Your task to perform on an android device: open app "Grab" Image 0: 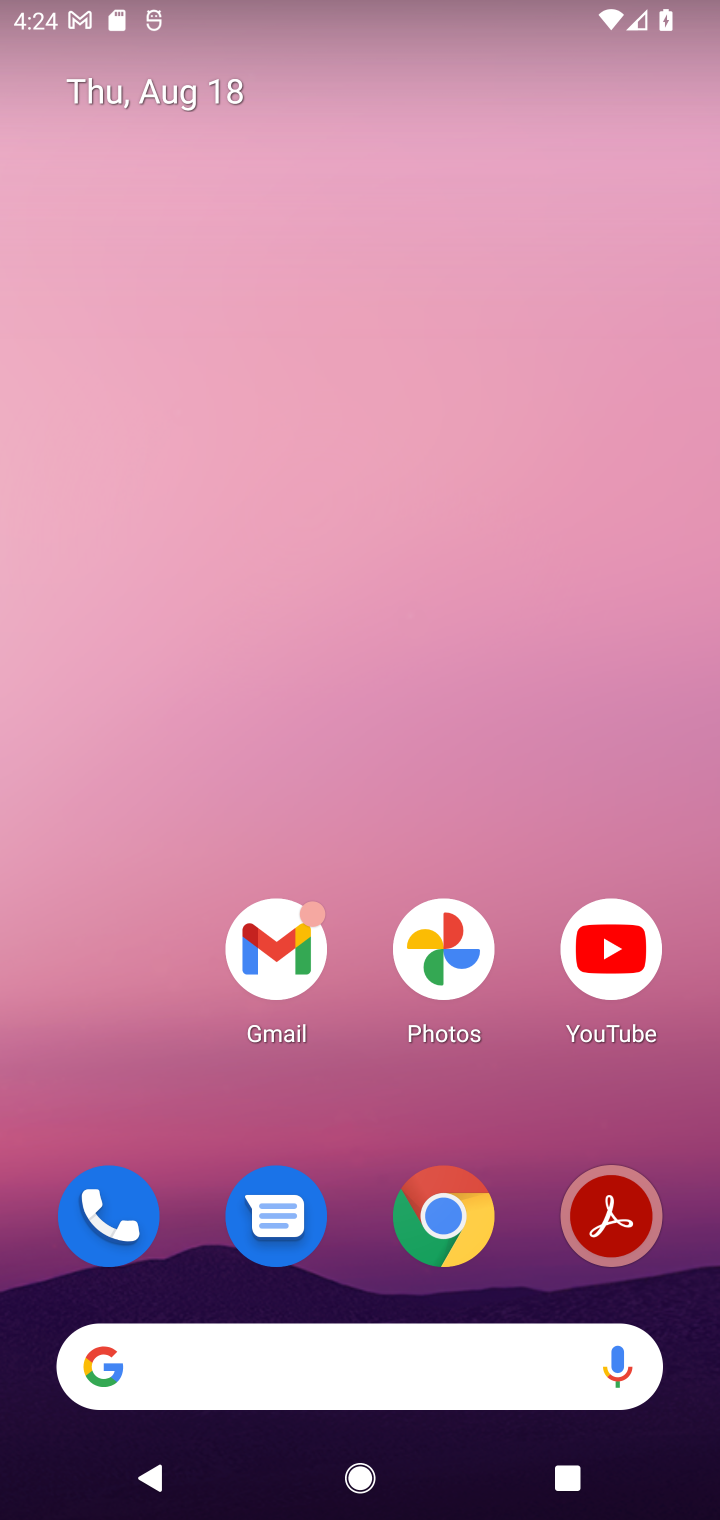
Step 0: drag from (519, 1285) to (450, 294)
Your task to perform on an android device: open app "Grab" Image 1: 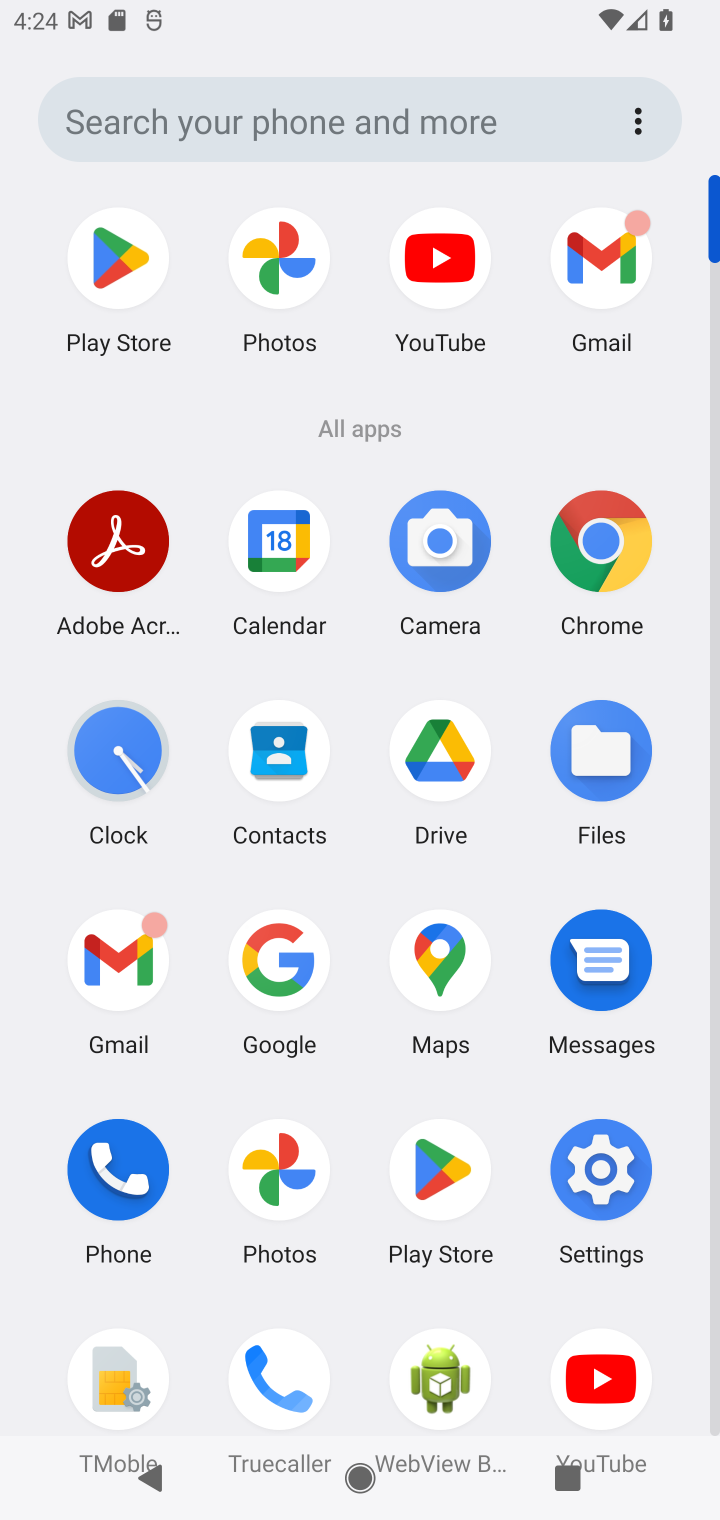
Step 1: click (439, 1172)
Your task to perform on an android device: open app "Grab" Image 2: 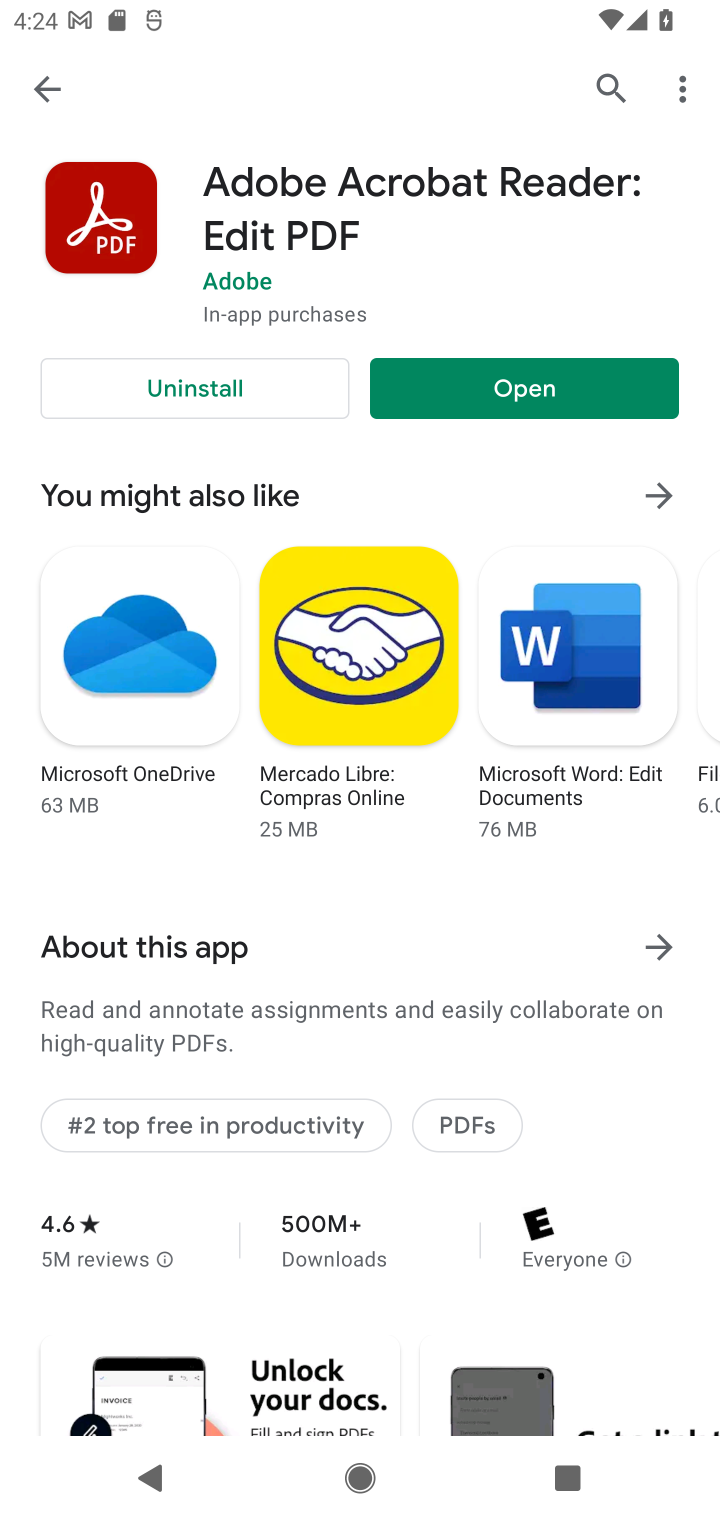
Step 2: click (611, 91)
Your task to perform on an android device: open app "Grab" Image 3: 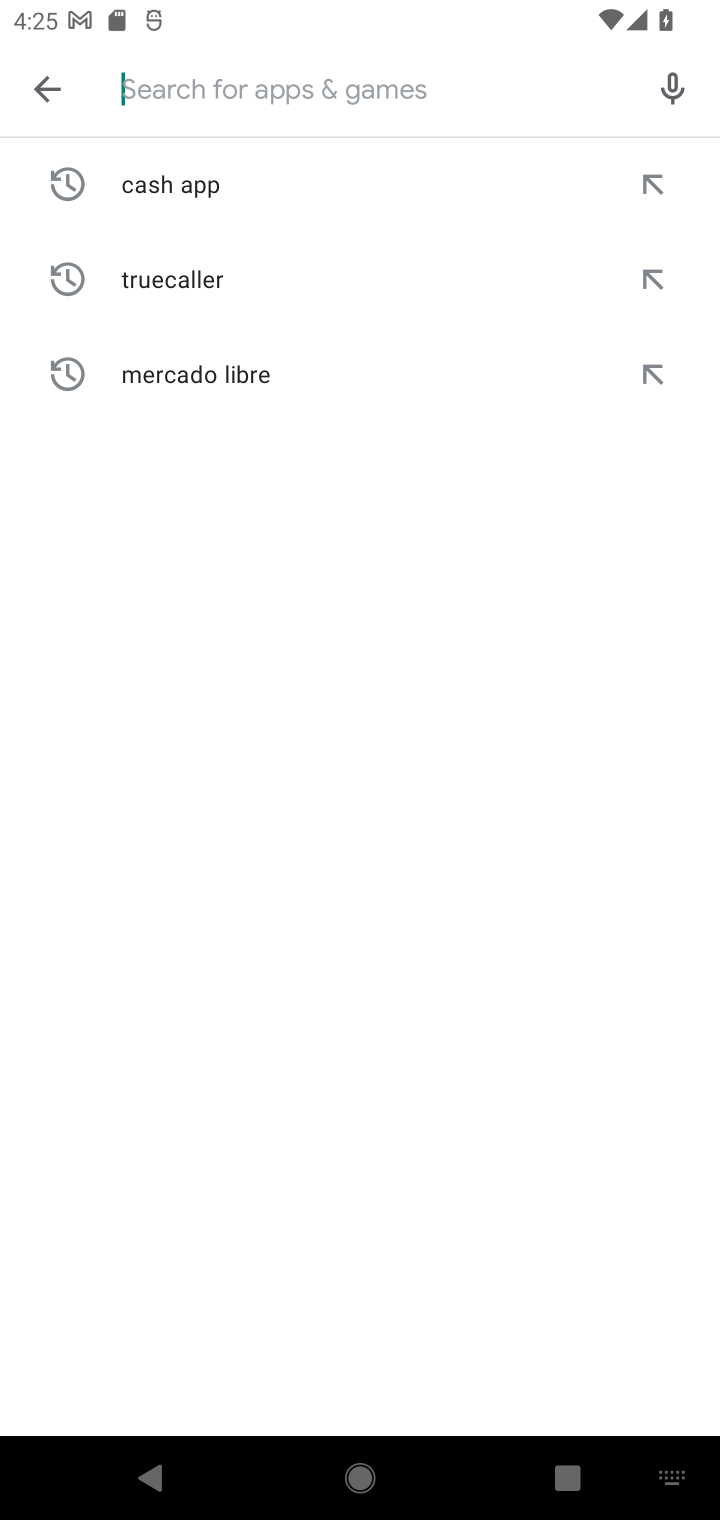
Step 3: type "Grab"
Your task to perform on an android device: open app "Grab" Image 4: 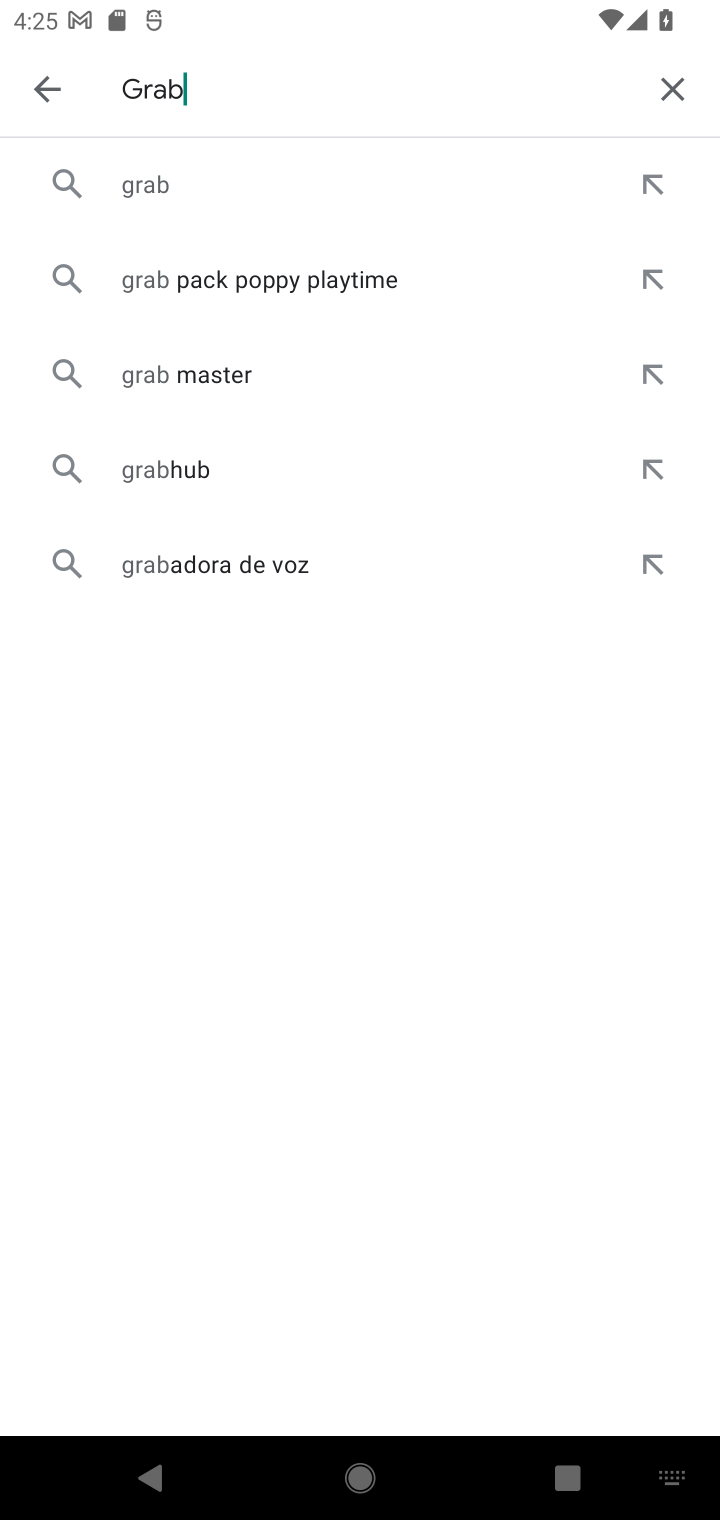
Step 4: click (145, 184)
Your task to perform on an android device: open app "Grab" Image 5: 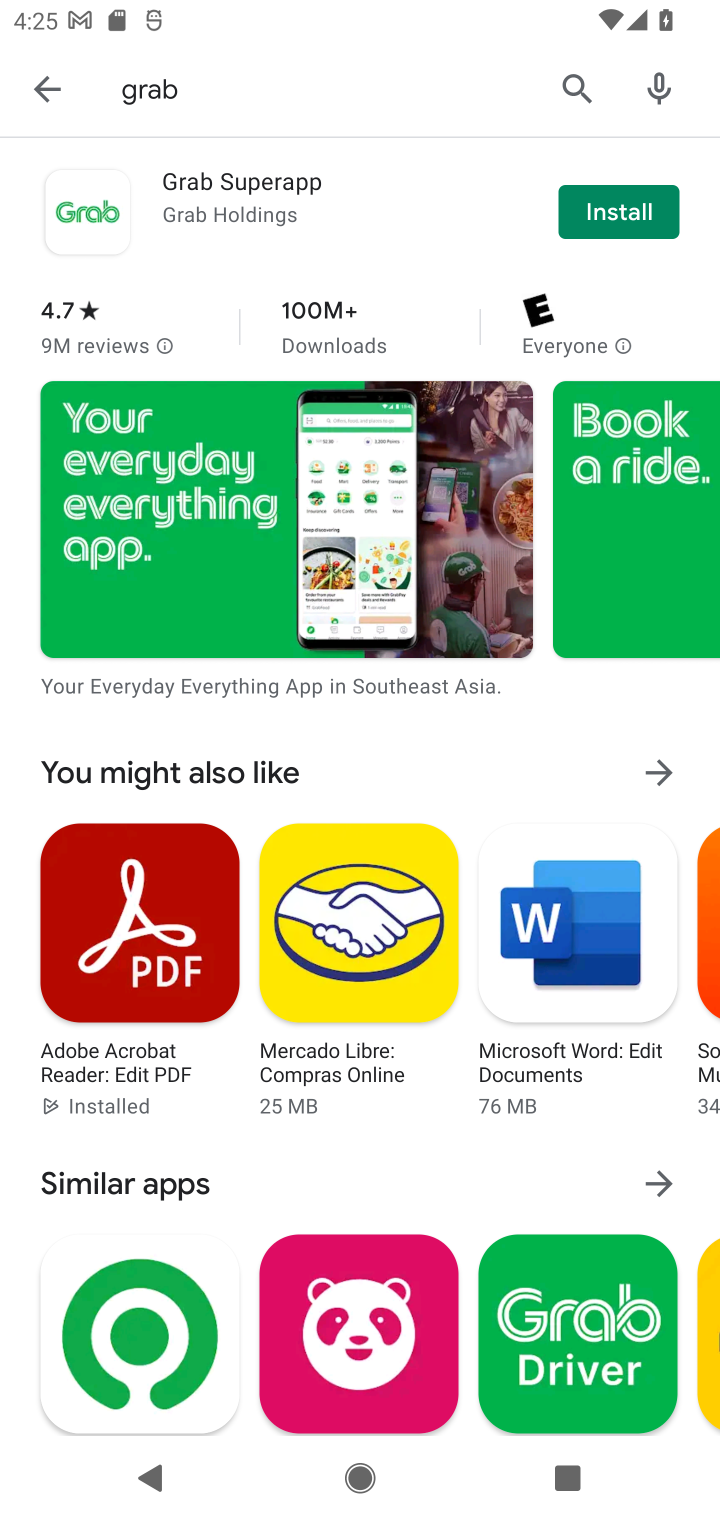
Step 5: task complete